Your task to perform on an android device: Is it going to rain this weekend? Image 0: 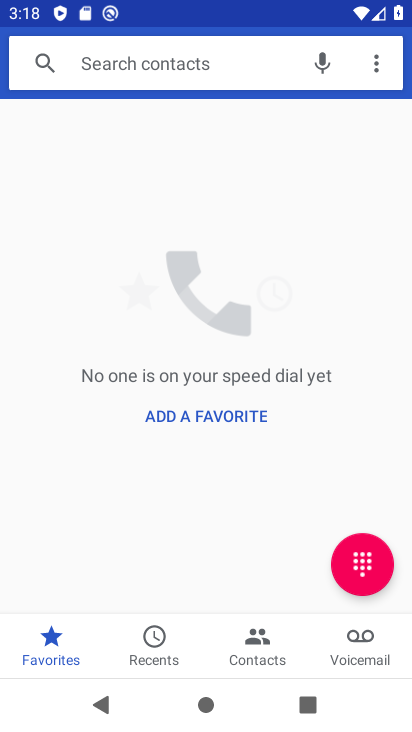
Step 0: press home button
Your task to perform on an android device: Is it going to rain this weekend? Image 1: 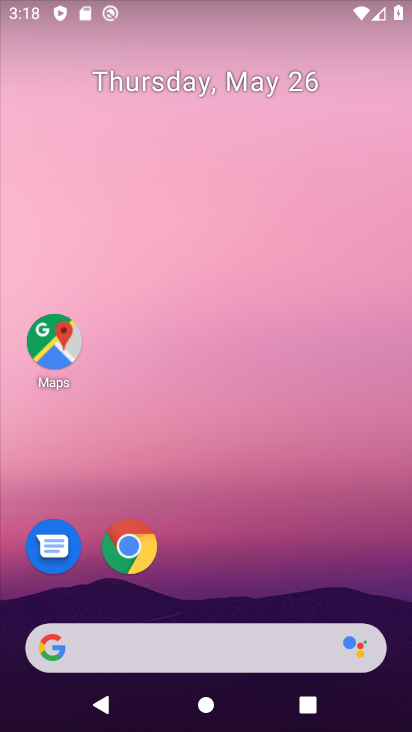
Step 1: drag from (294, 535) to (179, 2)
Your task to perform on an android device: Is it going to rain this weekend? Image 2: 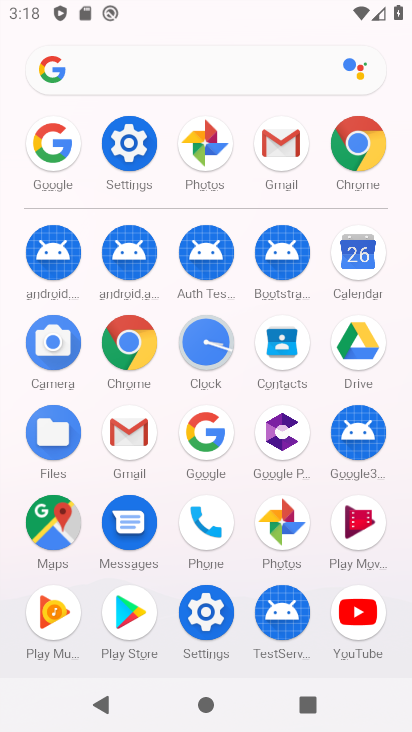
Step 2: click (194, 427)
Your task to perform on an android device: Is it going to rain this weekend? Image 3: 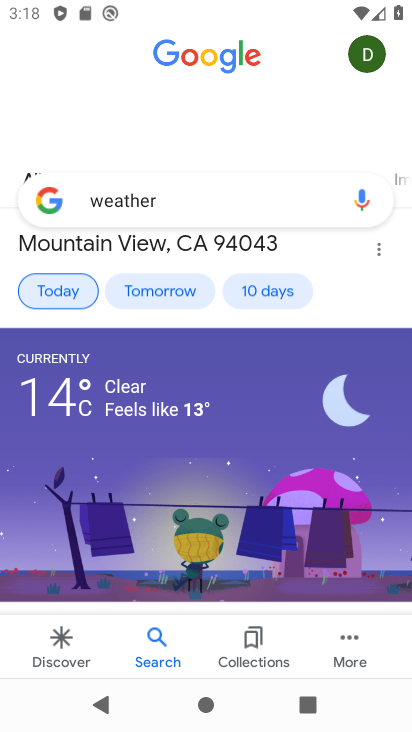
Step 3: click (275, 290)
Your task to perform on an android device: Is it going to rain this weekend? Image 4: 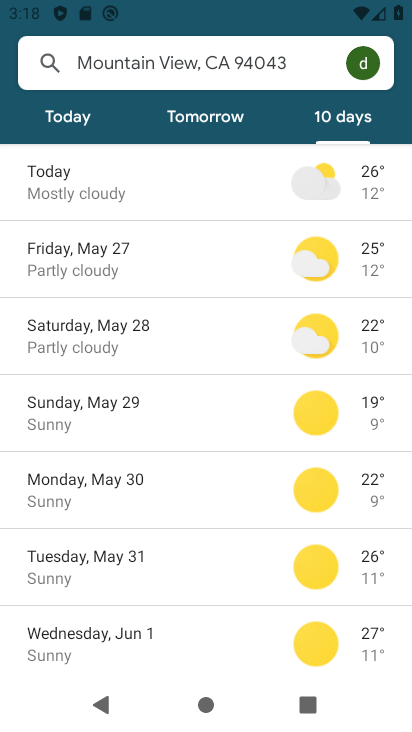
Step 4: drag from (214, 555) to (227, 60)
Your task to perform on an android device: Is it going to rain this weekend? Image 5: 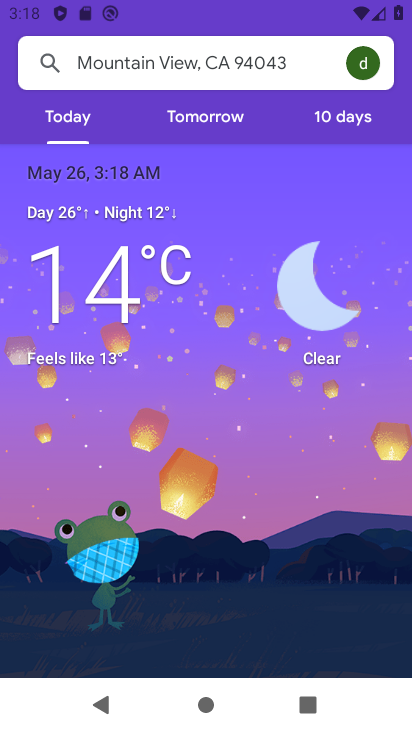
Step 5: click (325, 124)
Your task to perform on an android device: Is it going to rain this weekend? Image 6: 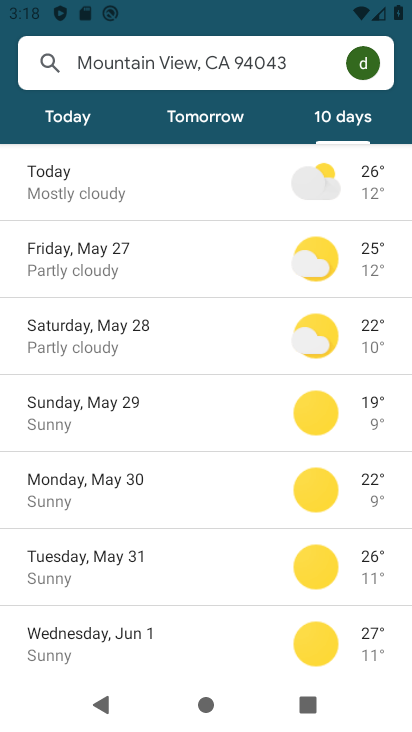
Step 6: task complete